Your task to perform on an android device: change the upload size in google photos Image 0: 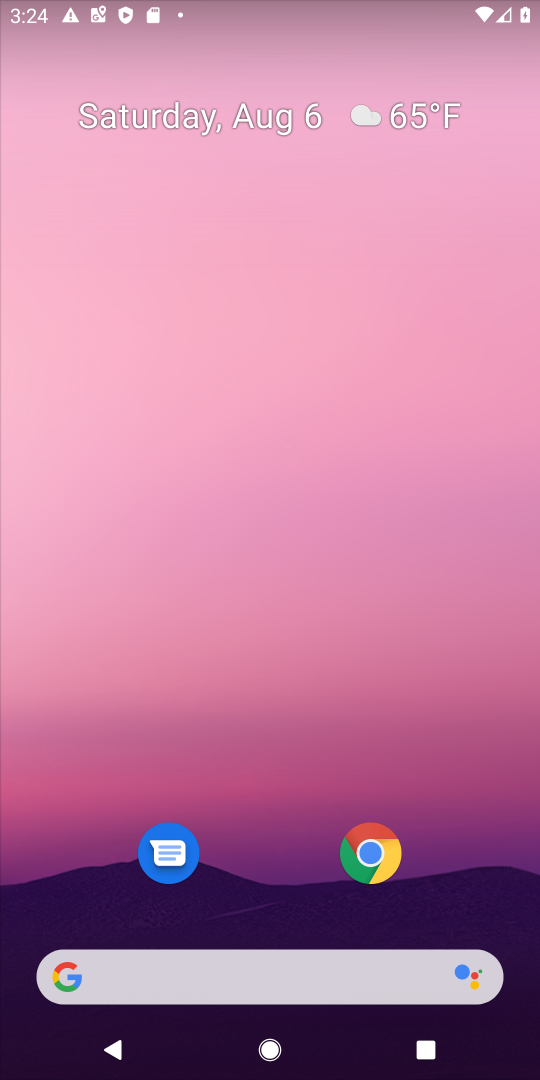
Step 0: drag from (244, 877) to (416, 49)
Your task to perform on an android device: change the upload size in google photos Image 1: 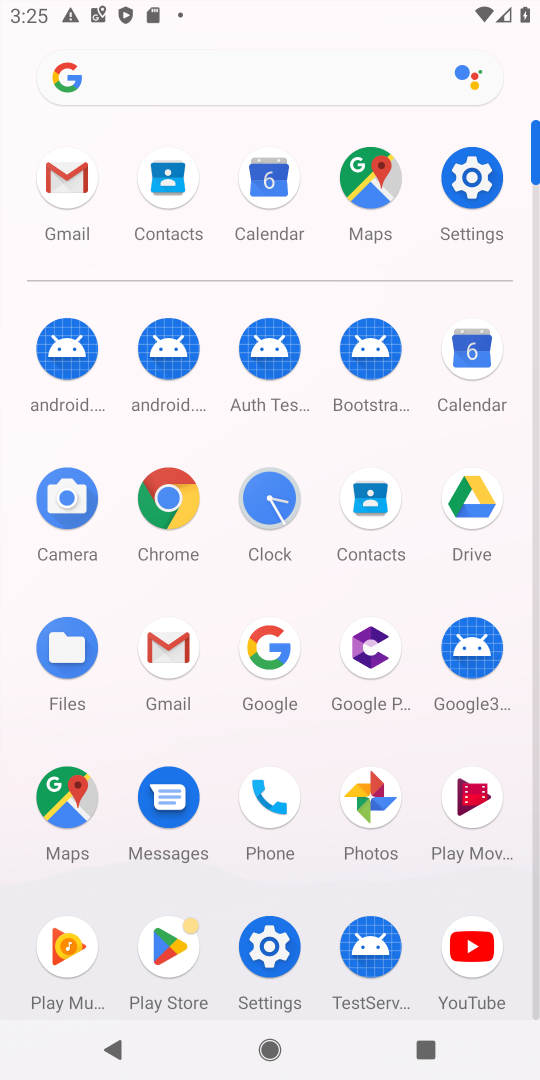
Step 1: click (379, 793)
Your task to perform on an android device: change the upload size in google photos Image 2: 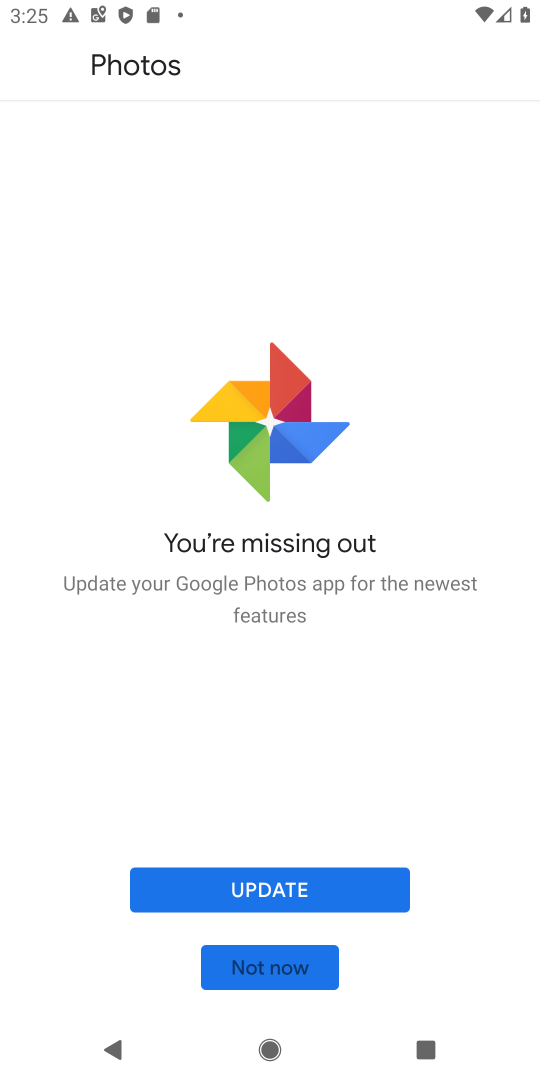
Step 2: click (267, 980)
Your task to perform on an android device: change the upload size in google photos Image 3: 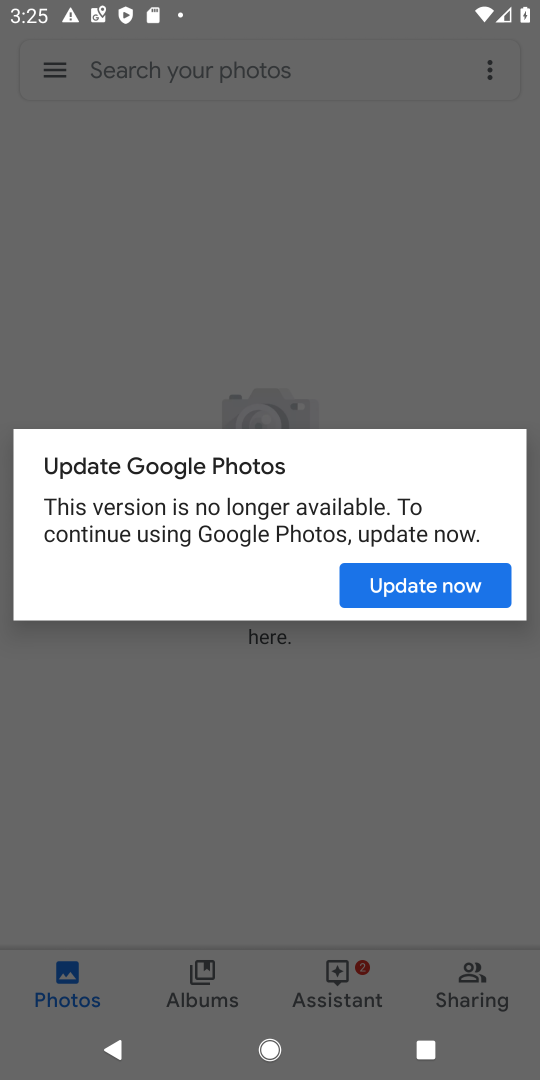
Step 3: click (382, 594)
Your task to perform on an android device: change the upload size in google photos Image 4: 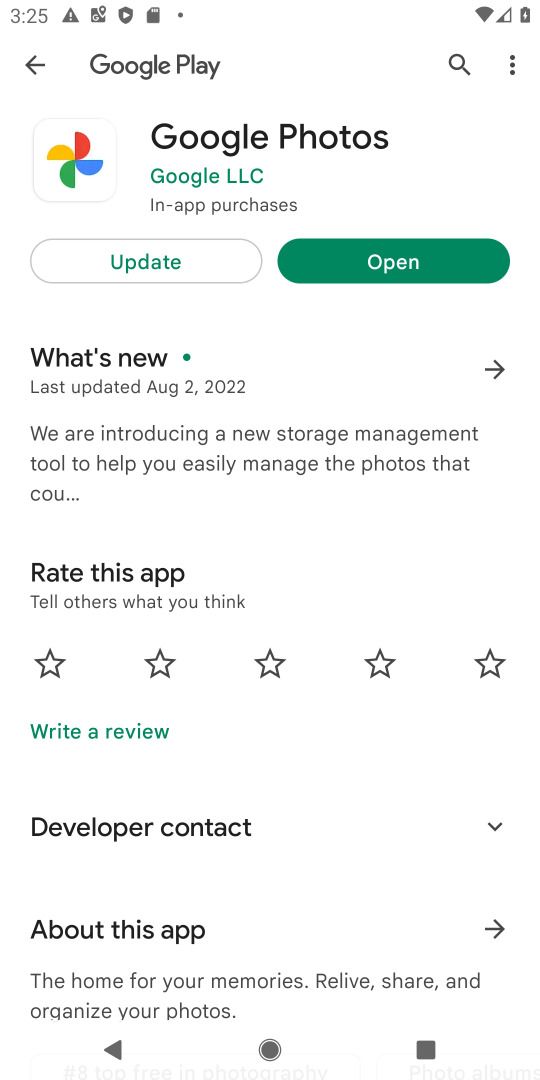
Step 4: click (391, 260)
Your task to perform on an android device: change the upload size in google photos Image 5: 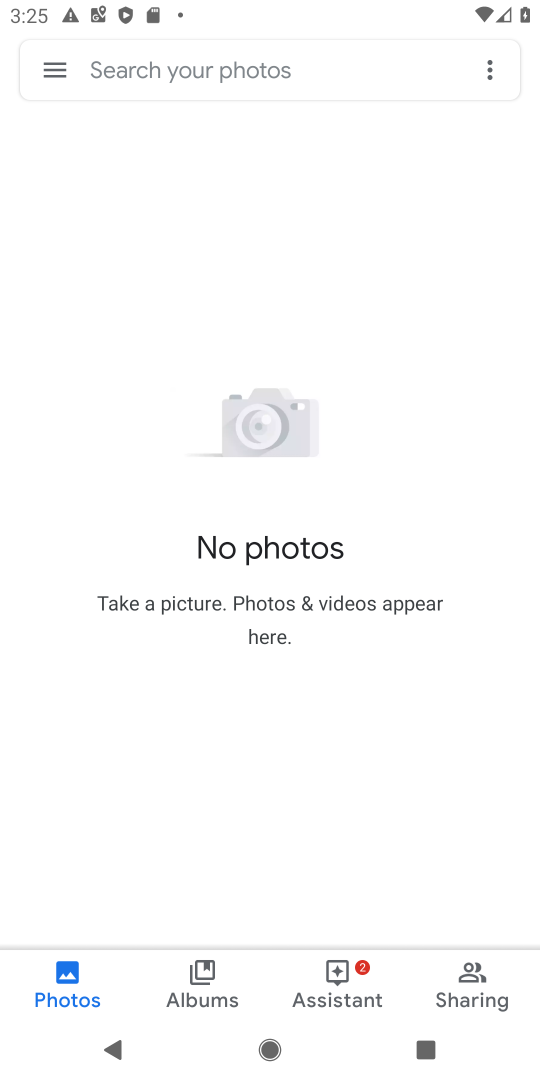
Step 5: click (63, 63)
Your task to perform on an android device: change the upload size in google photos Image 6: 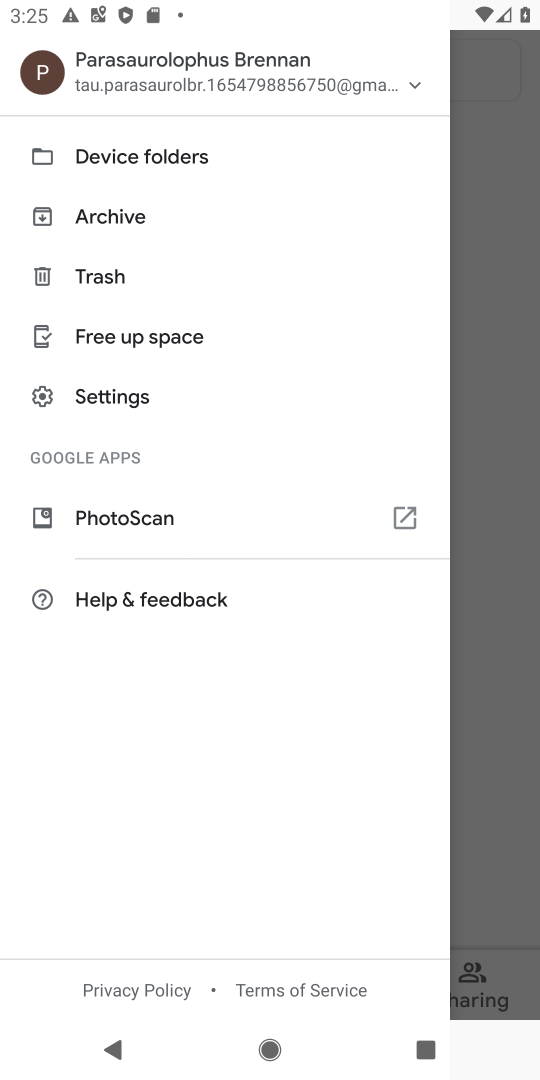
Step 6: click (132, 411)
Your task to perform on an android device: change the upload size in google photos Image 7: 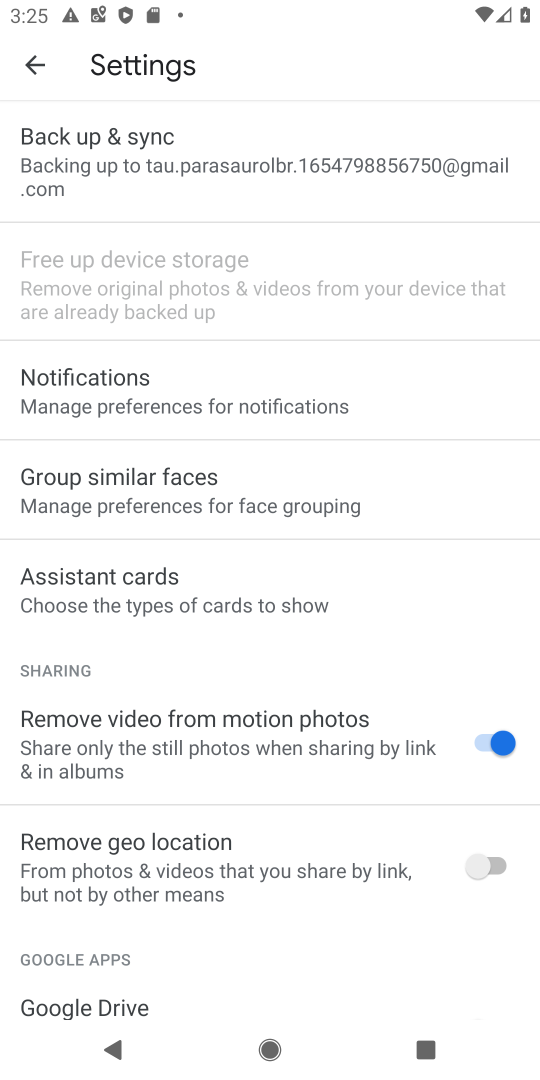
Step 7: click (348, 75)
Your task to perform on an android device: change the upload size in google photos Image 8: 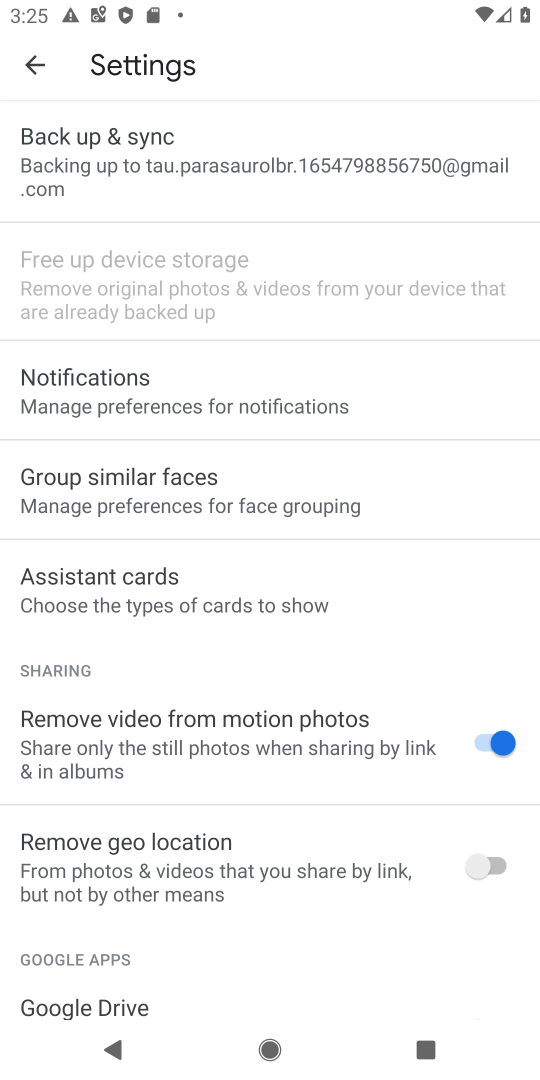
Step 8: click (67, 132)
Your task to perform on an android device: change the upload size in google photos Image 9: 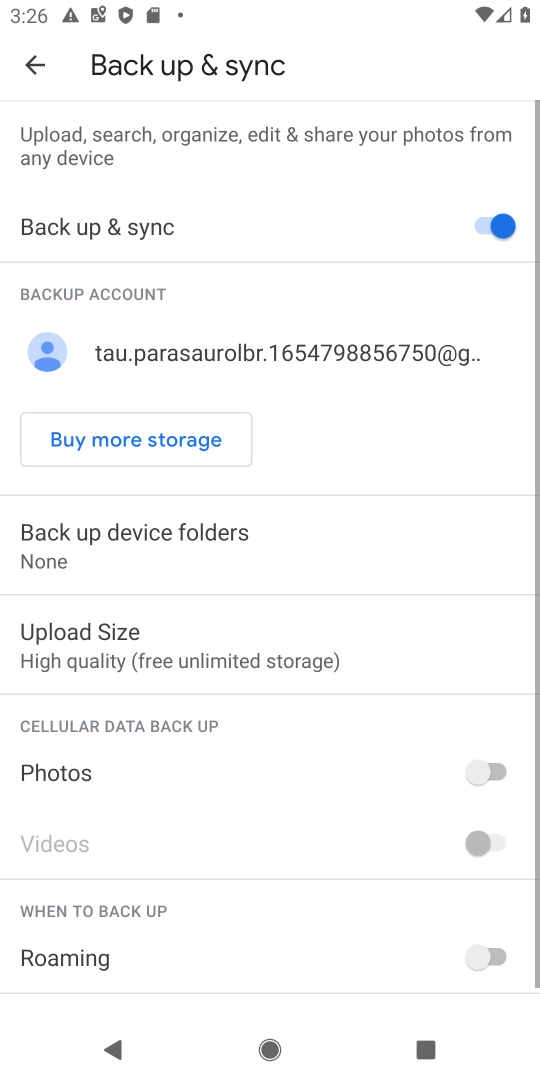
Step 9: click (181, 650)
Your task to perform on an android device: change the upload size in google photos Image 10: 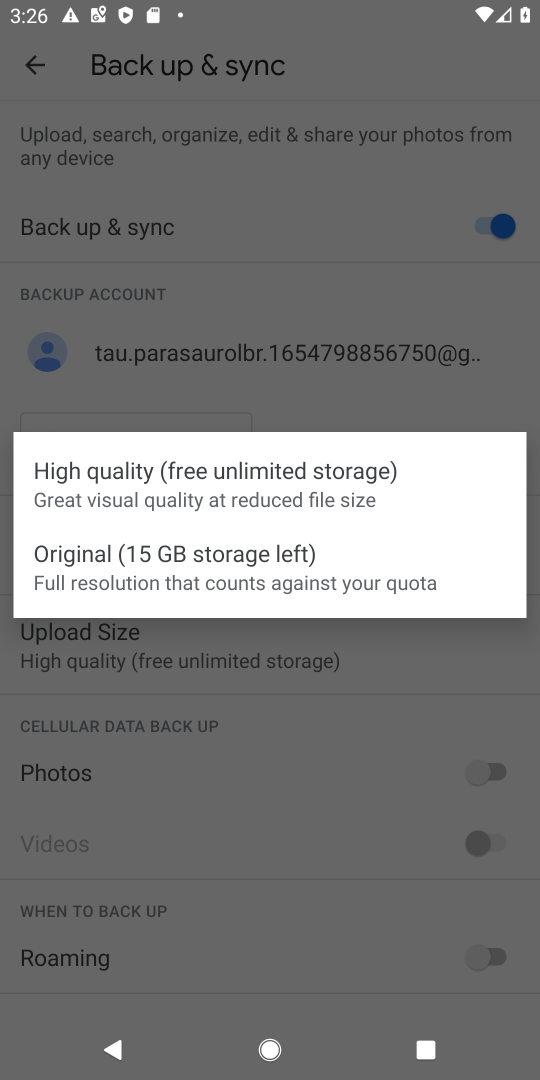
Step 10: click (176, 737)
Your task to perform on an android device: change the upload size in google photos Image 11: 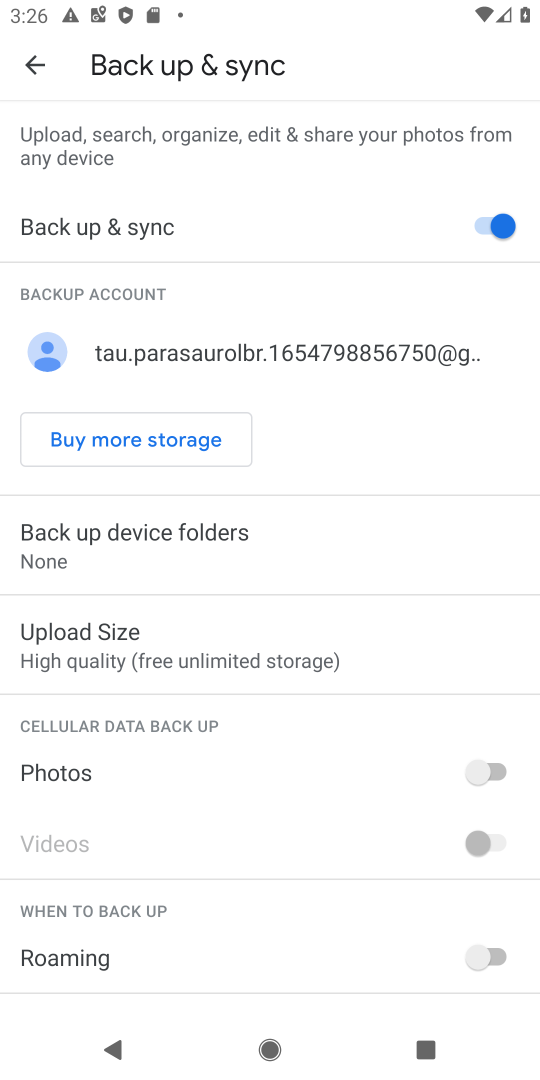
Step 11: click (161, 651)
Your task to perform on an android device: change the upload size in google photos Image 12: 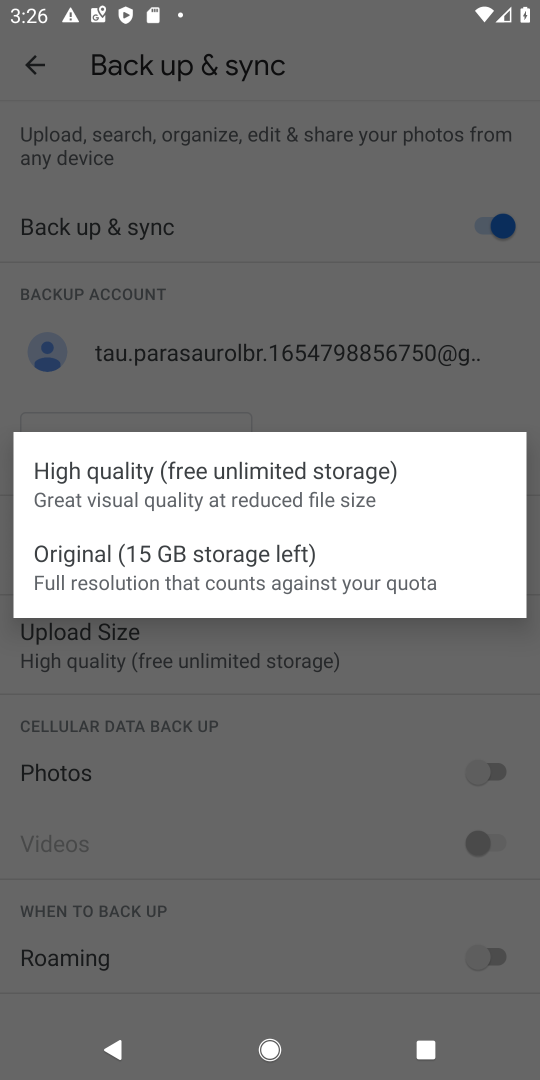
Step 12: click (138, 571)
Your task to perform on an android device: change the upload size in google photos Image 13: 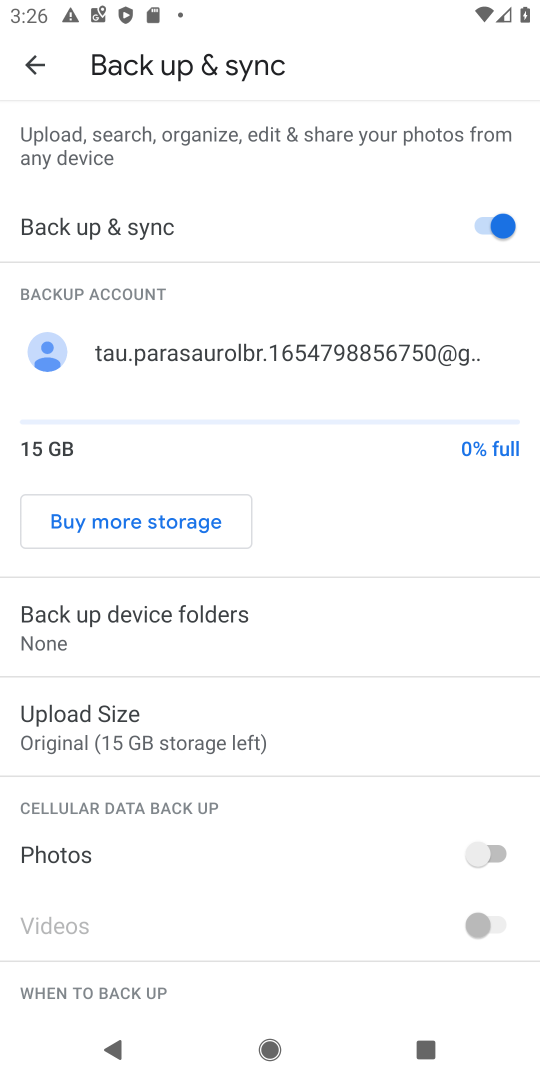
Step 13: task complete